Your task to perform on an android device: change timer sound Image 0: 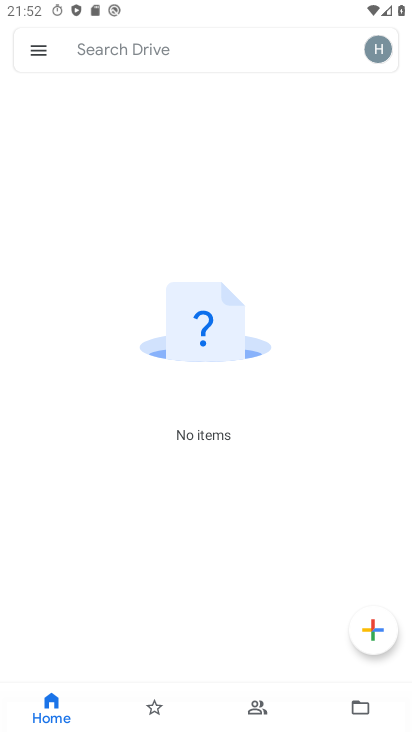
Step 0: press back button
Your task to perform on an android device: change timer sound Image 1: 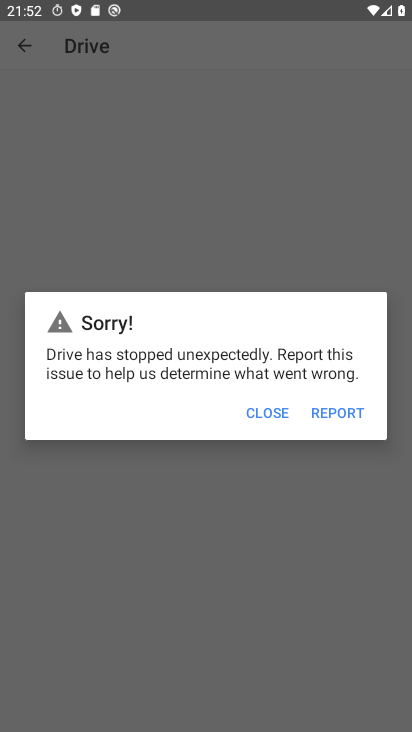
Step 1: click (274, 420)
Your task to perform on an android device: change timer sound Image 2: 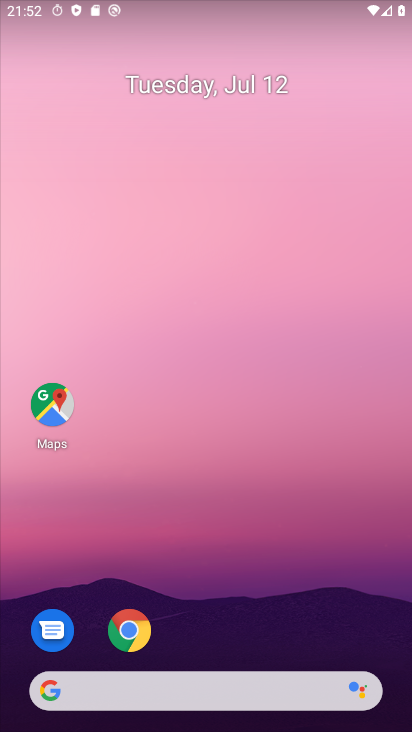
Step 2: drag from (180, 643) to (312, 25)
Your task to perform on an android device: change timer sound Image 3: 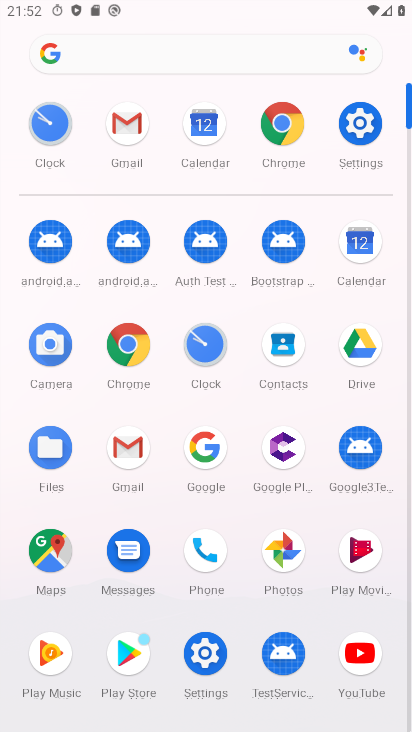
Step 3: click (201, 338)
Your task to perform on an android device: change timer sound Image 4: 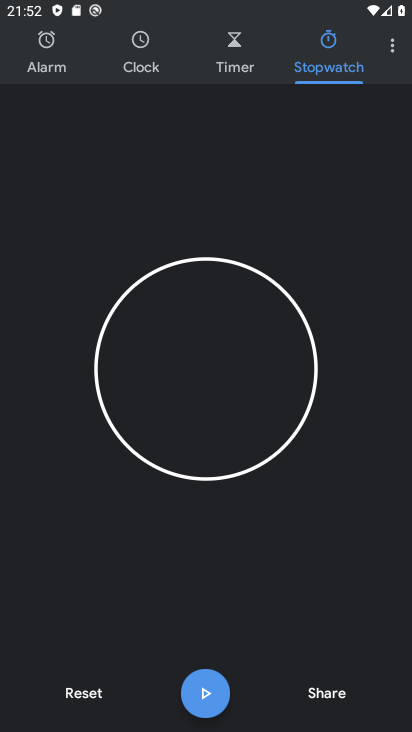
Step 4: click (394, 39)
Your task to perform on an android device: change timer sound Image 5: 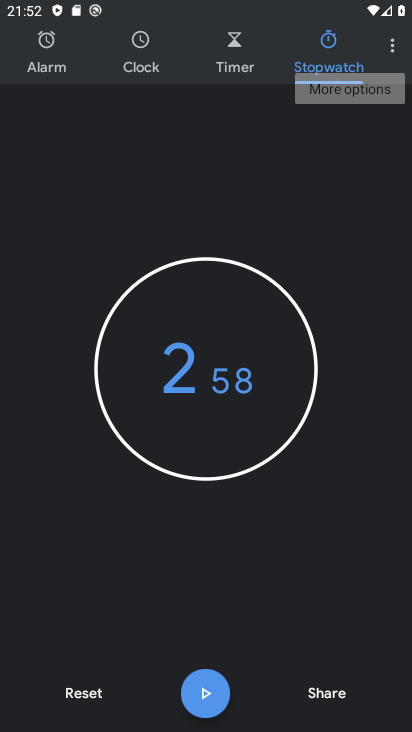
Step 5: click (393, 44)
Your task to perform on an android device: change timer sound Image 6: 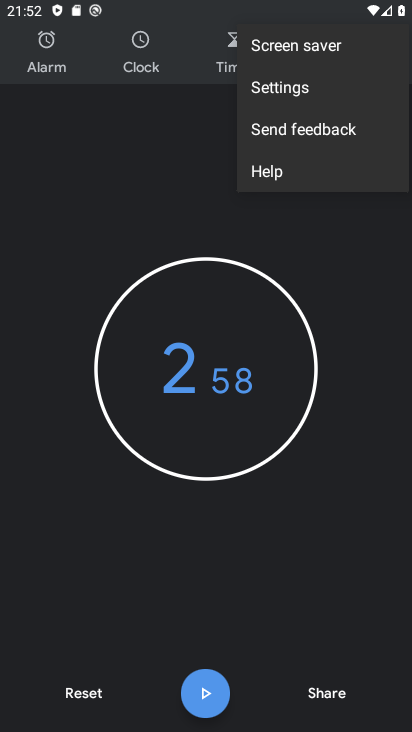
Step 6: click (283, 88)
Your task to perform on an android device: change timer sound Image 7: 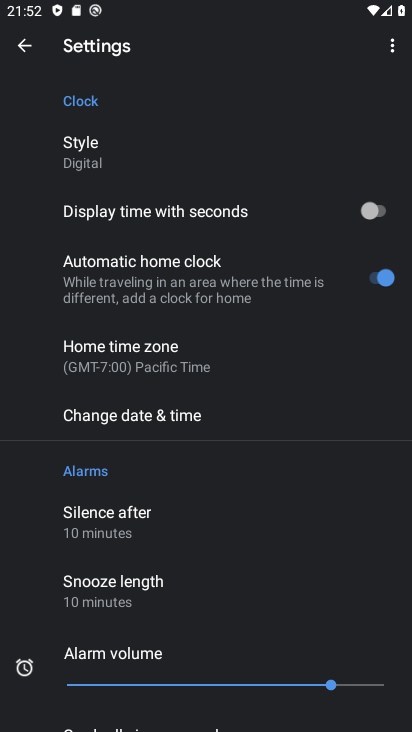
Step 7: drag from (134, 642) to (226, 163)
Your task to perform on an android device: change timer sound Image 8: 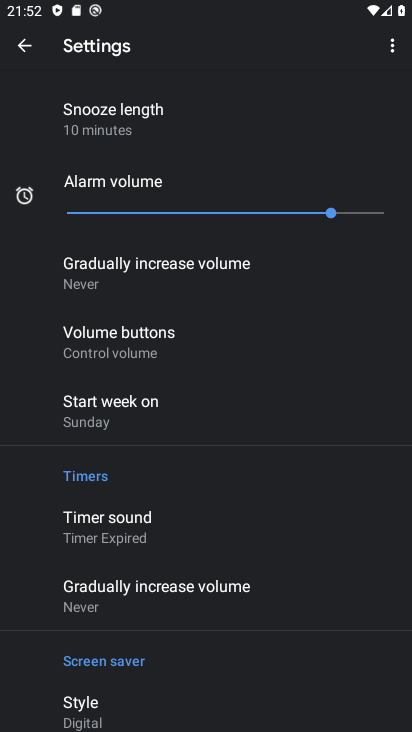
Step 8: click (150, 532)
Your task to perform on an android device: change timer sound Image 9: 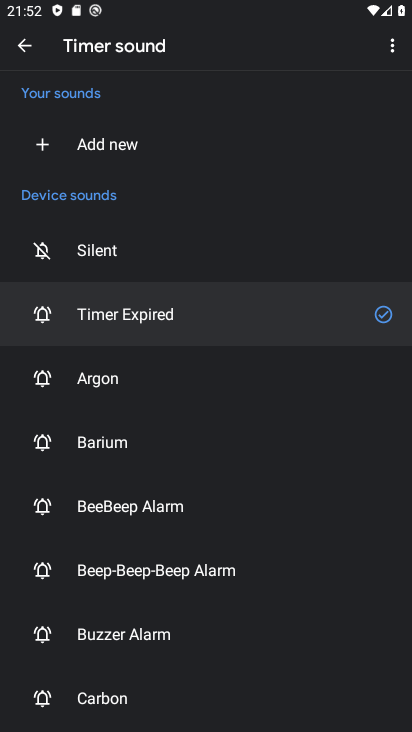
Step 9: click (123, 391)
Your task to perform on an android device: change timer sound Image 10: 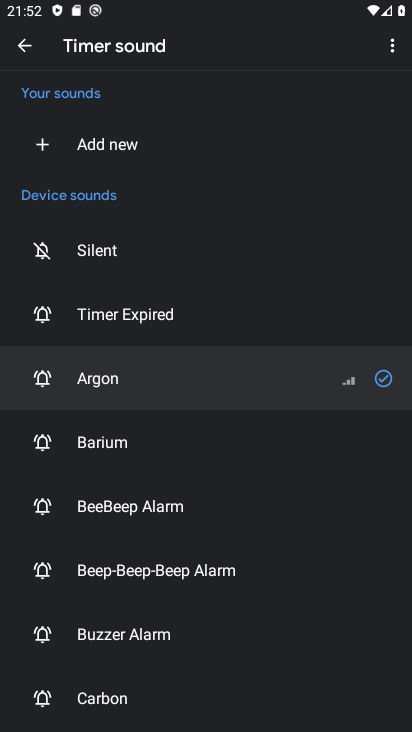
Step 10: task complete